Your task to perform on an android device: Go to location settings Image 0: 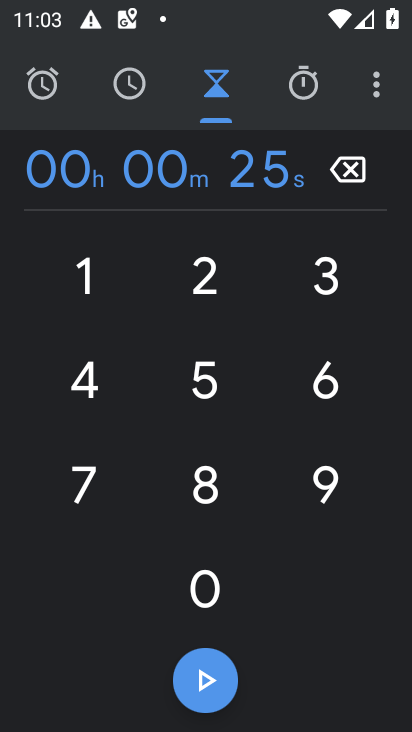
Step 0: press home button
Your task to perform on an android device: Go to location settings Image 1: 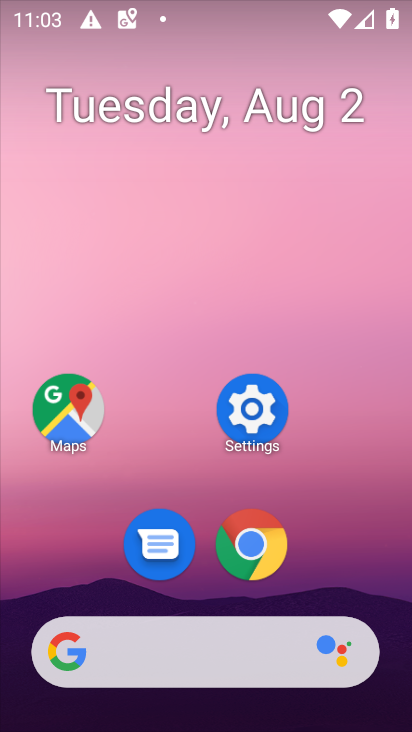
Step 1: click (245, 414)
Your task to perform on an android device: Go to location settings Image 2: 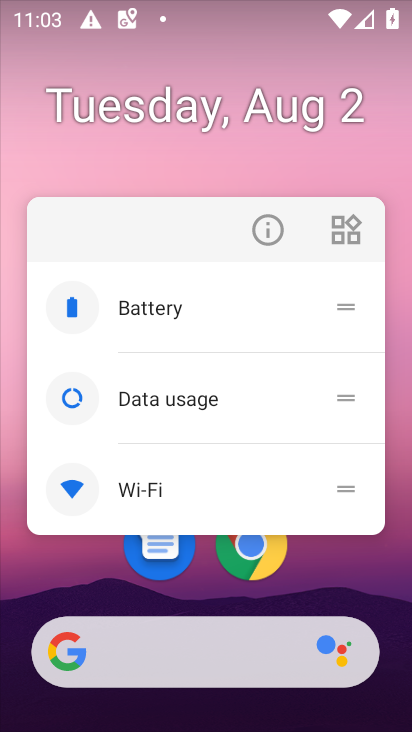
Step 2: click (360, 573)
Your task to perform on an android device: Go to location settings Image 3: 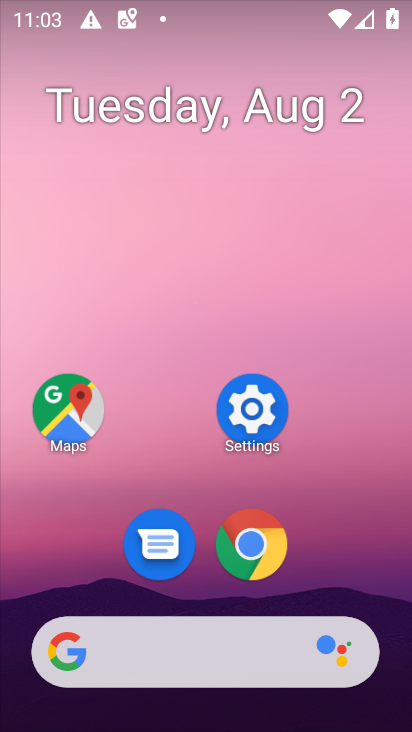
Step 3: click (246, 406)
Your task to perform on an android device: Go to location settings Image 4: 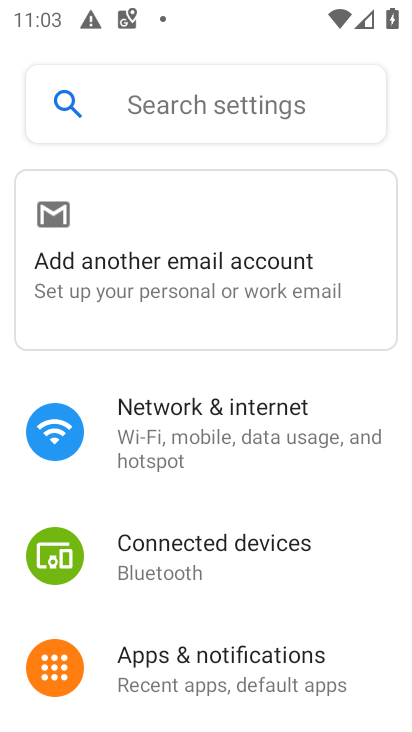
Step 4: drag from (228, 628) to (393, 189)
Your task to perform on an android device: Go to location settings Image 5: 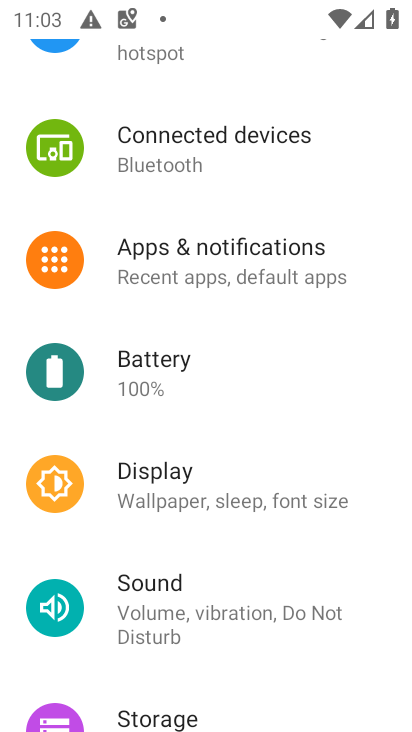
Step 5: drag from (203, 655) to (331, 185)
Your task to perform on an android device: Go to location settings Image 6: 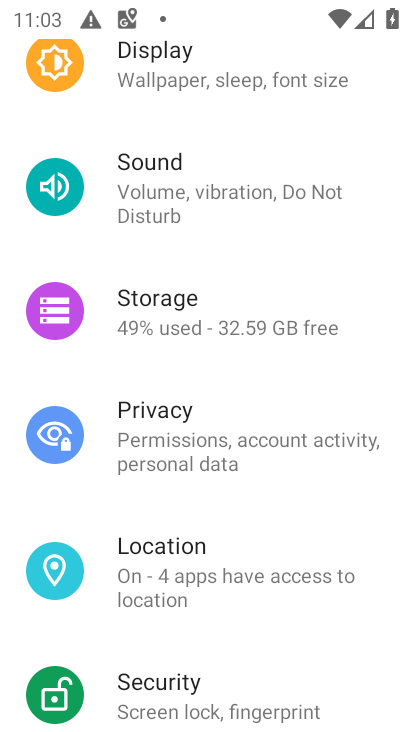
Step 6: click (173, 563)
Your task to perform on an android device: Go to location settings Image 7: 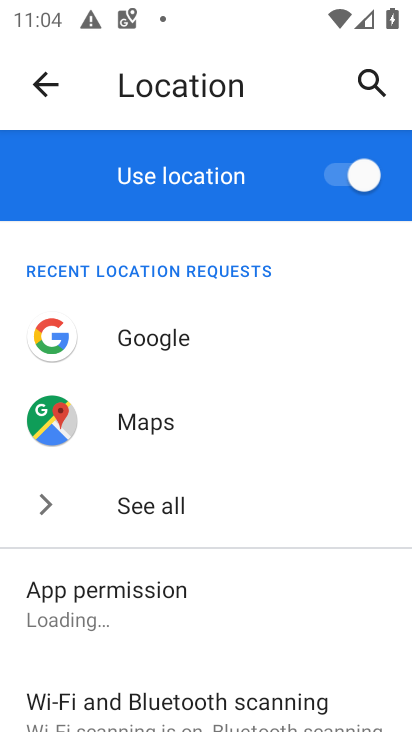
Step 7: task complete